Your task to perform on an android device: find snoozed emails in the gmail app Image 0: 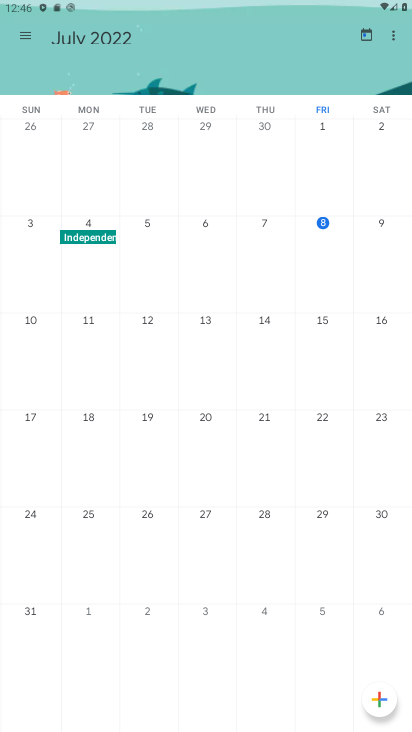
Step 0: press home button
Your task to perform on an android device: find snoozed emails in the gmail app Image 1: 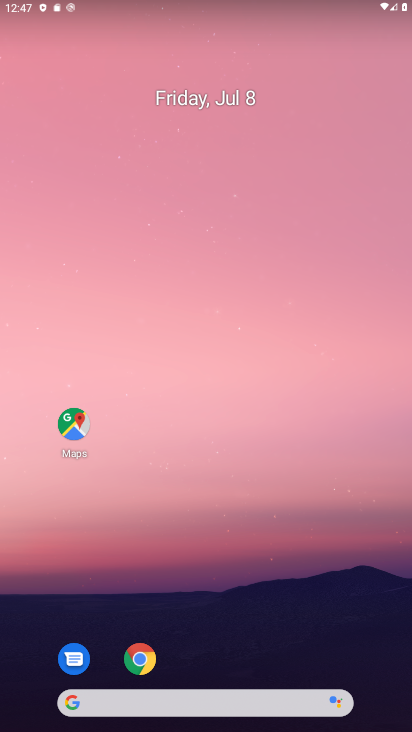
Step 1: drag from (320, 590) to (29, 338)
Your task to perform on an android device: find snoozed emails in the gmail app Image 2: 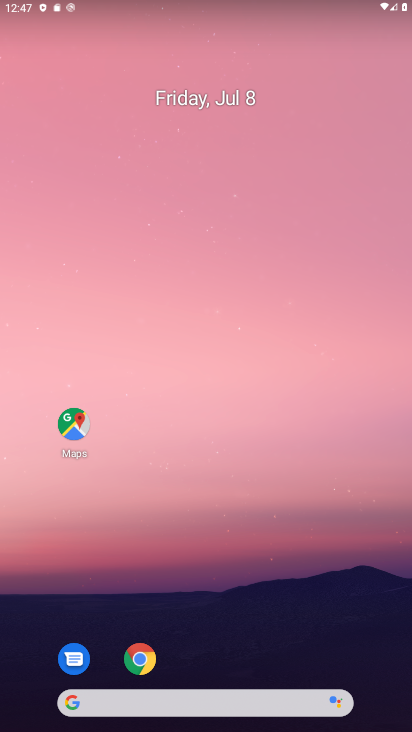
Step 2: click (130, 514)
Your task to perform on an android device: find snoozed emails in the gmail app Image 3: 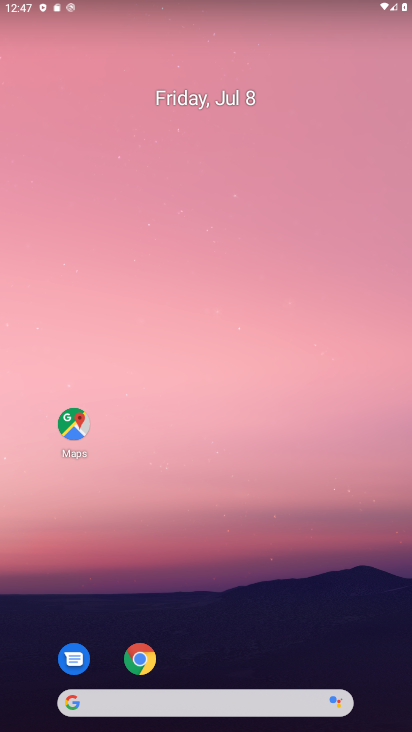
Step 3: drag from (268, 122) to (300, 12)
Your task to perform on an android device: find snoozed emails in the gmail app Image 4: 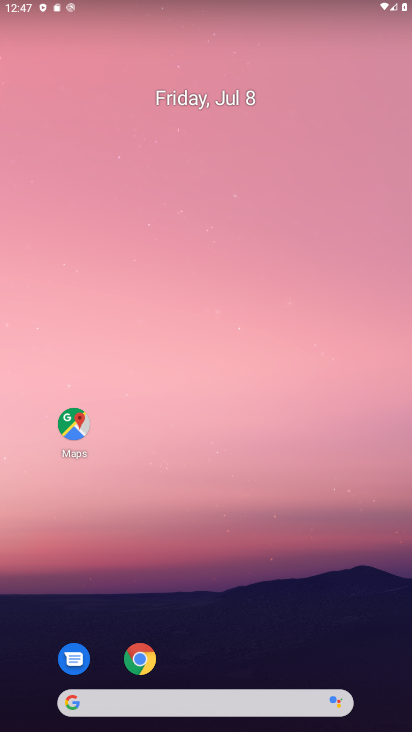
Step 4: drag from (220, 593) to (259, 8)
Your task to perform on an android device: find snoozed emails in the gmail app Image 5: 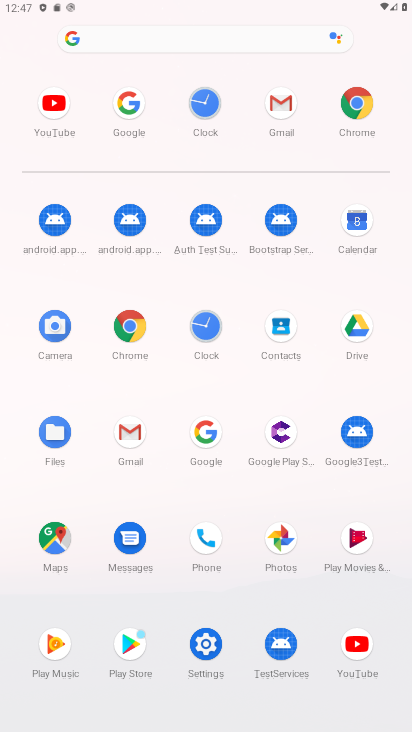
Step 5: click (128, 436)
Your task to perform on an android device: find snoozed emails in the gmail app Image 6: 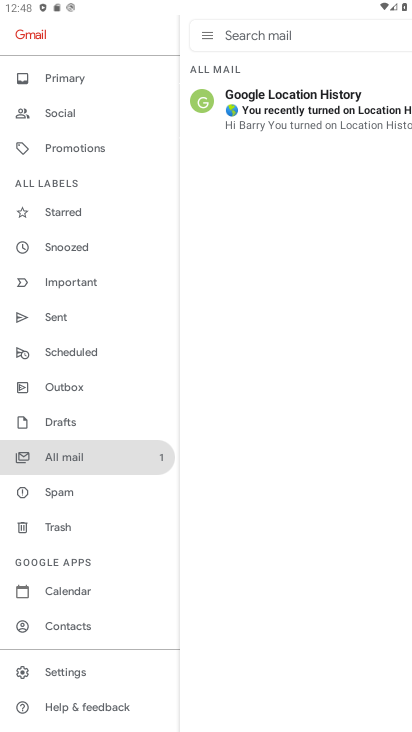
Step 6: click (98, 249)
Your task to perform on an android device: find snoozed emails in the gmail app Image 7: 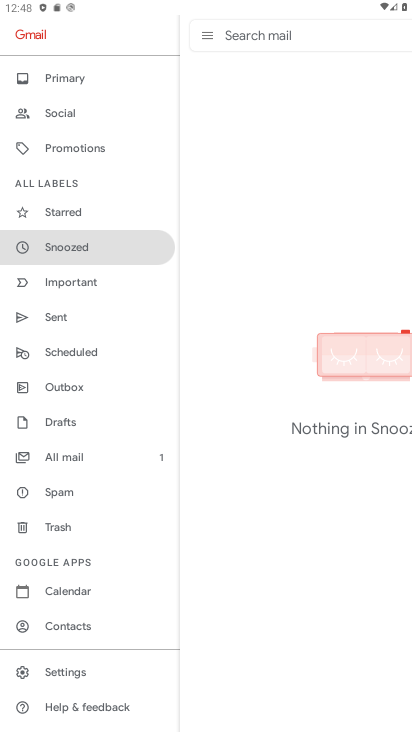
Step 7: task complete